Your task to perform on an android device: toggle notification dots Image 0: 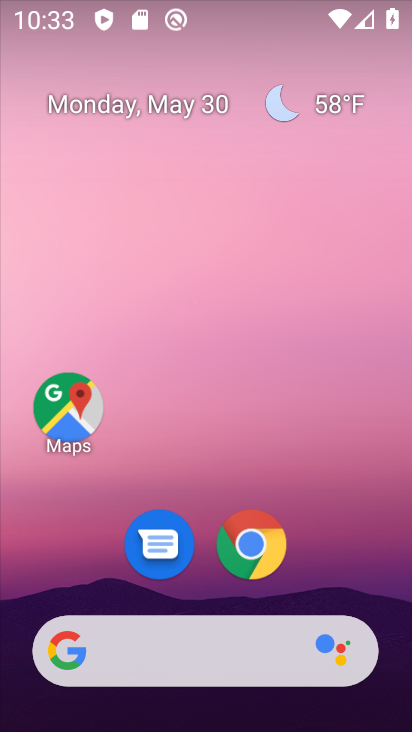
Step 0: drag from (369, 577) to (321, 87)
Your task to perform on an android device: toggle notification dots Image 1: 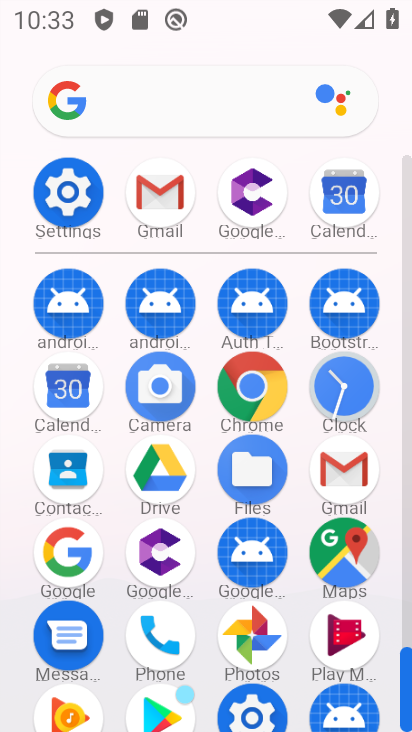
Step 1: click (64, 227)
Your task to perform on an android device: toggle notification dots Image 2: 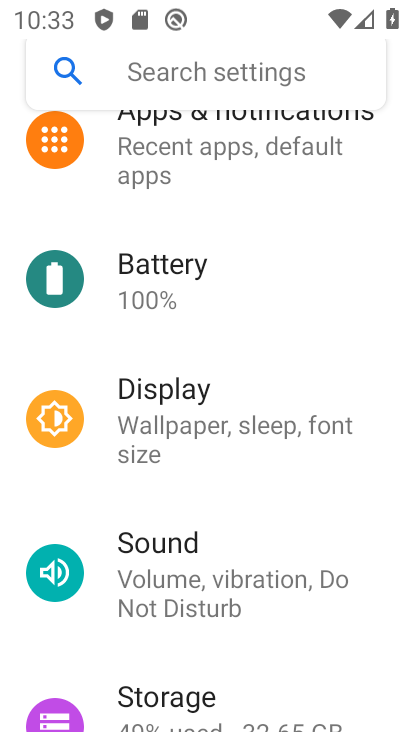
Step 2: task complete